Your task to perform on an android device: Open Yahoo.com Image 0: 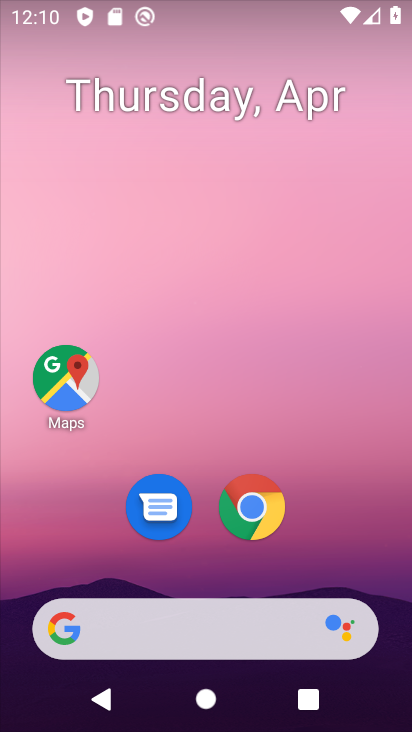
Step 0: click (253, 500)
Your task to perform on an android device: Open Yahoo.com Image 1: 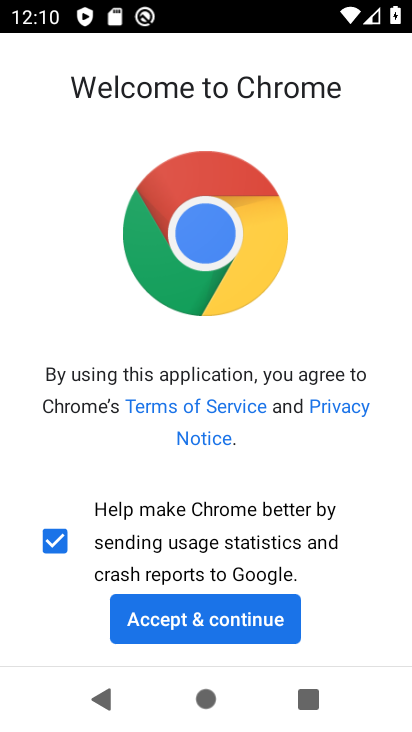
Step 1: click (235, 610)
Your task to perform on an android device: Open Yahoo.com Image 2: 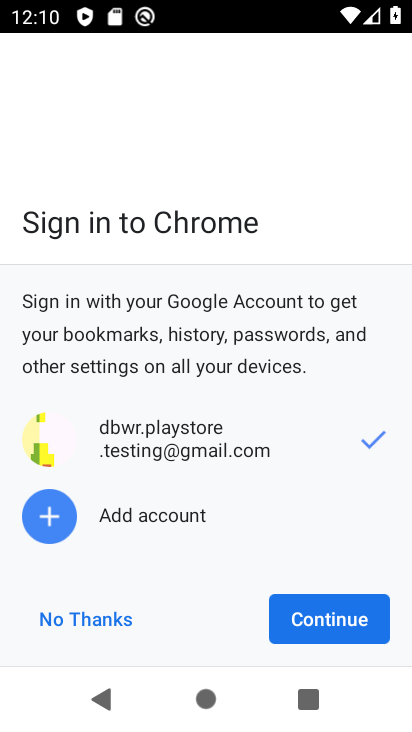
Step 2: click (343, 623)
Your task to perform on an android device: Open Yahoo.com Image 3: 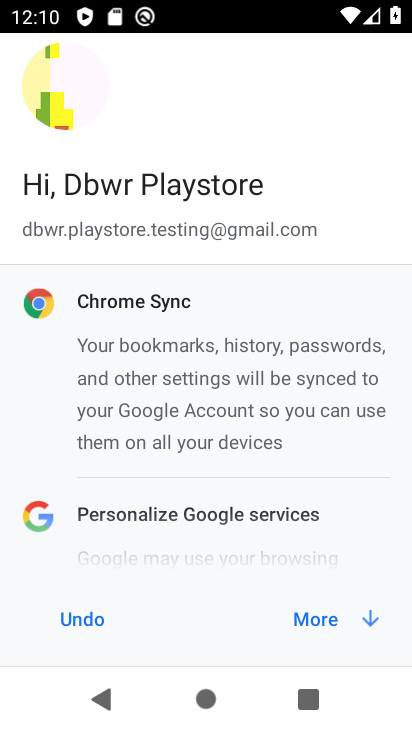
Step 3: click (329, 618)
Your task to perform on an android device: Open Yahoo.com Image 4: 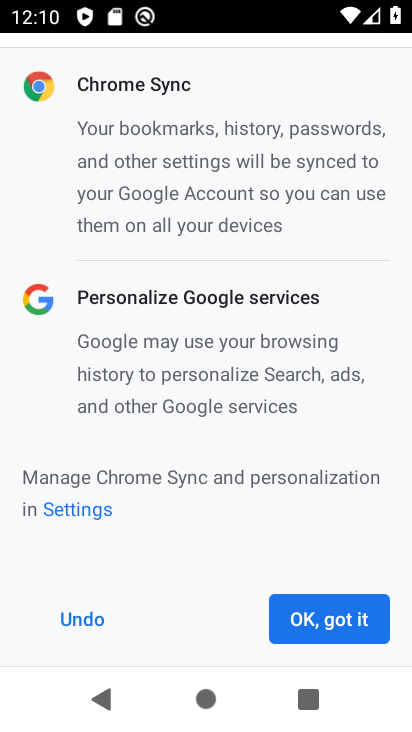
Step 4: click (330, 613)
Your task to perform on an android device: Open Yahoo.com Image 5: 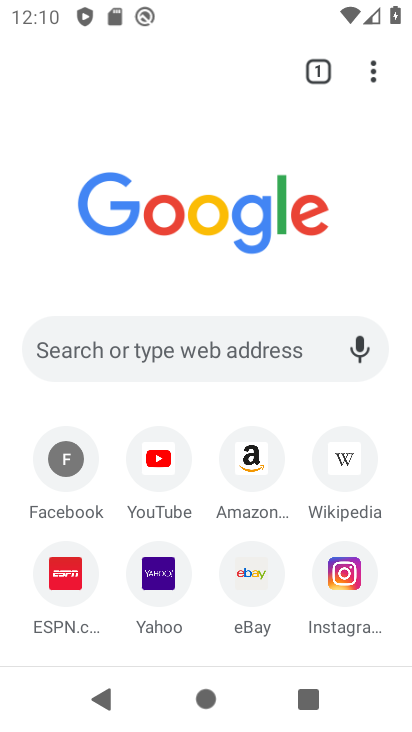
Step 5: click (239, 348)
Your task to perform on an android device: Open Yahoo.com Image 6: 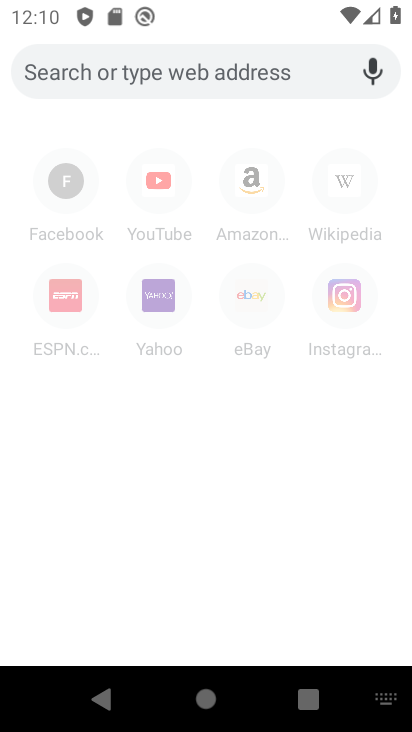
Step 6: click (172, 303)
Your task to perform on an android device: Open Yahoo.com Image 7: 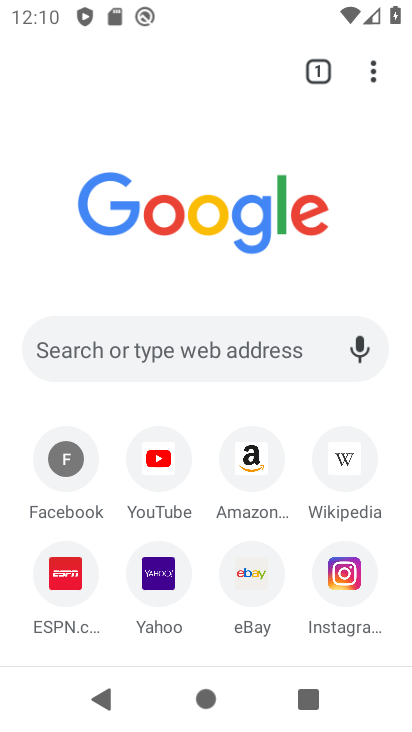
Step 7: click (150, 565)
Your task to perform on an android device: Open Yahoo.com Image 8: 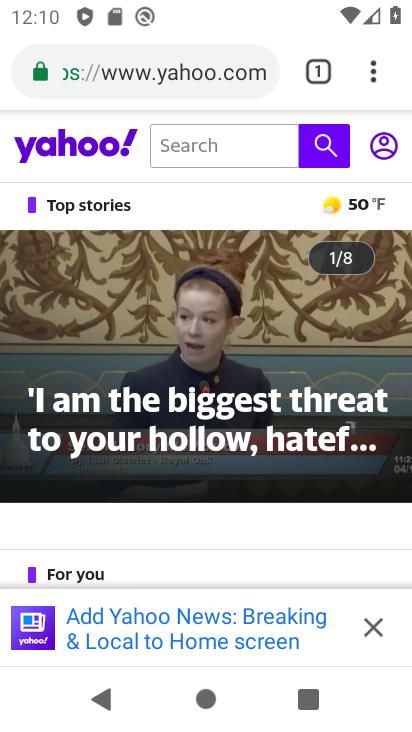
Step 8: task complete